Your task to perform on an android device: see sites visited before in the chrome app Image 0: 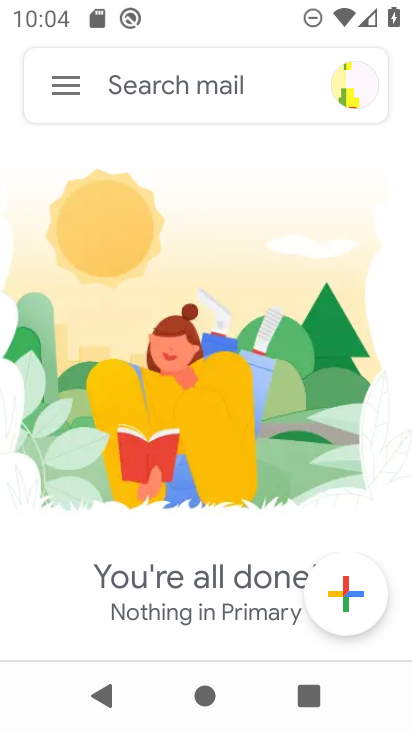
Step 0: press home button
Your task to perform on an android device: see sites visited before in the chrome app Image 1: 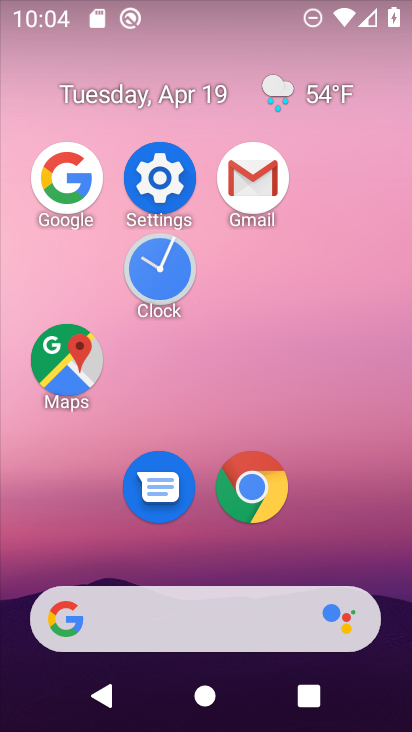
Step 1: click (250, 507)
Your task to perform on an android device: see sites visited before in the chrome app Image 2: 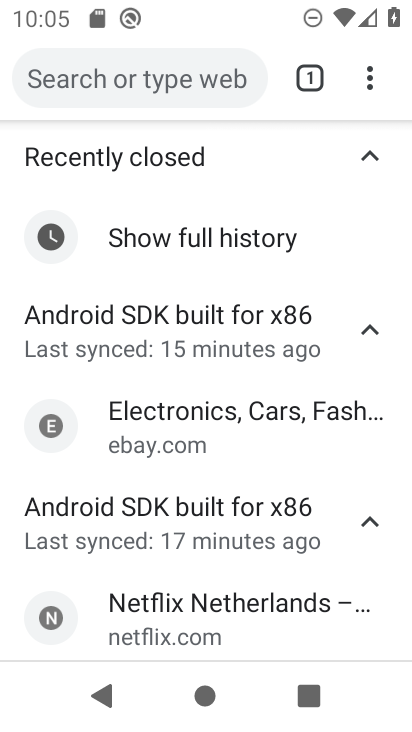
Step 2: click (368, 80)
Your task to perform on an android device: see sites visited before in the chrome app Image 3: 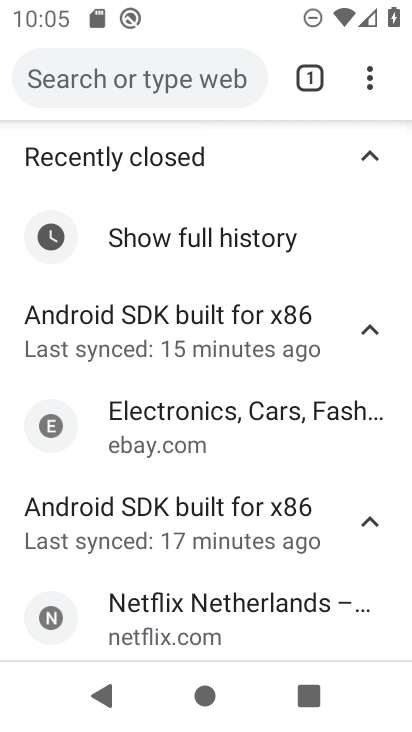
Step 3: click (361, 74)
Your task to perform on an android device: see sites visited before in the chrome app Image 4: 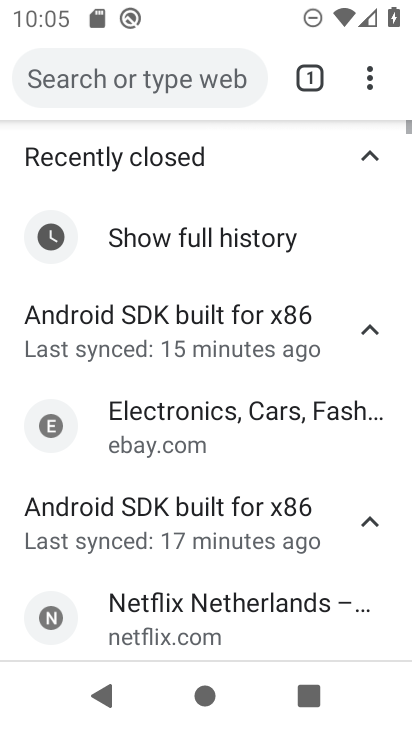
Step 4: click (370, 85)
Your task to perform on an android device: see sites visited before in the chrome app Image 5: 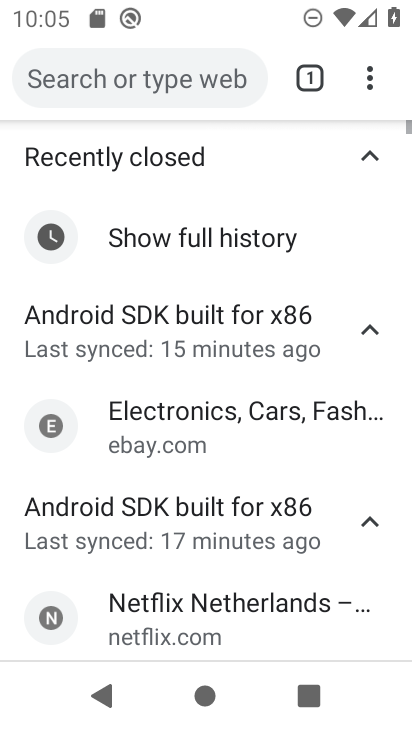
Step 5: click (370, 85)
Your task to perform on an android device: see sites visited before in the chrome app Image 6: 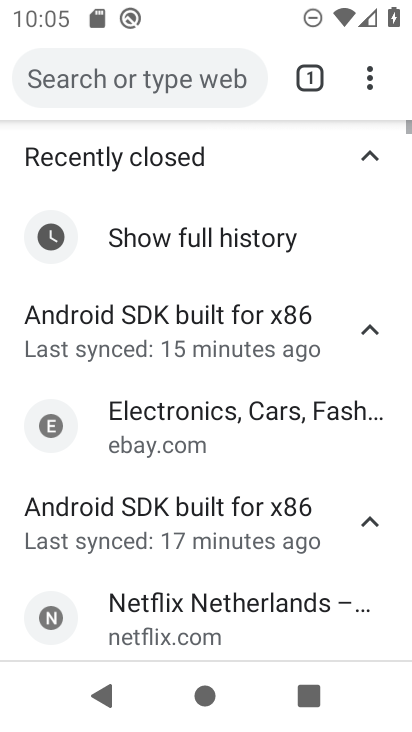
Step 6: click (370, 85)
Your task to perform on an android device: see sites visited before in the chrome app Image 7: 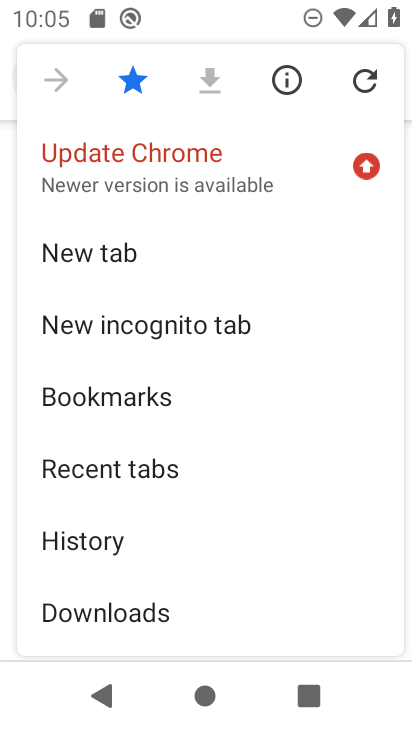
Step 7: click (167, 462)
Your task to perform on an android device: see sites visited before in the chrome app Image 8: 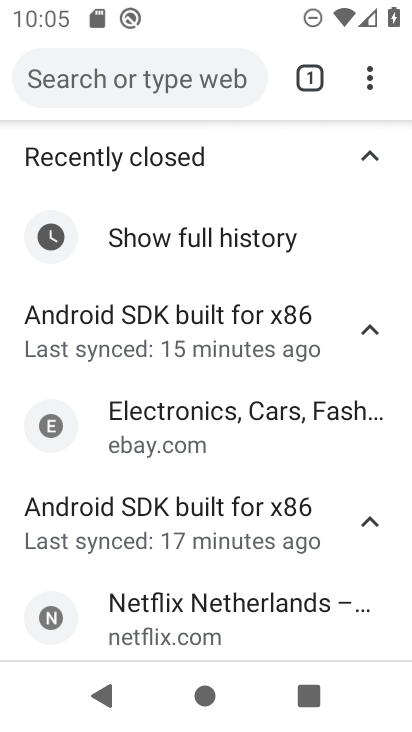
Step 8: task complete